Your task to perform on an android device: turn notification dots on Image 0: 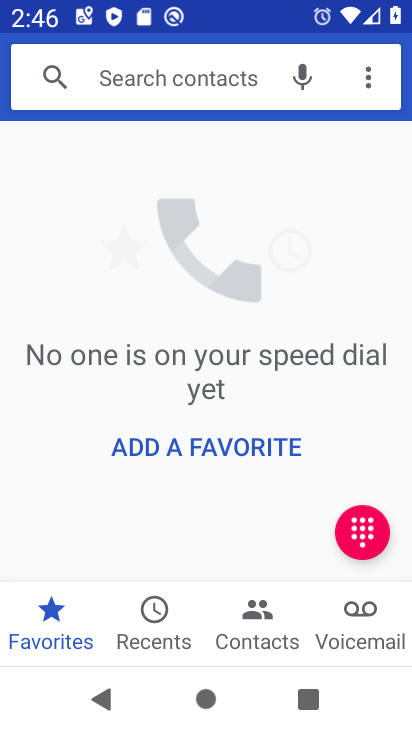
Step 0: press home button
Your task to perform on an android device: turn notification dots on Image 1: 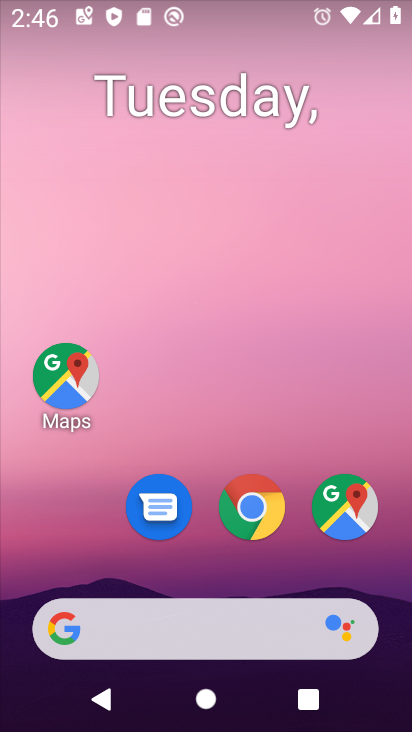
Step 1: drag from (284, 538) to (279, 169)
Your task to perform on an android device: turn notification dots on Image 2: 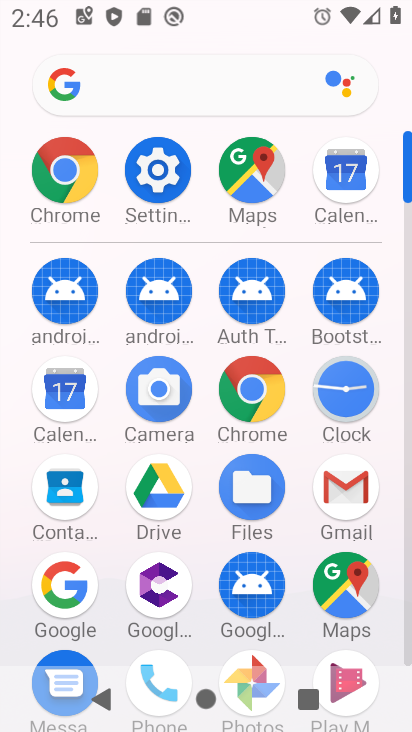
Step 2: click (151, 164)
Your task to perform on an android device: turn notification dots on Image 3: 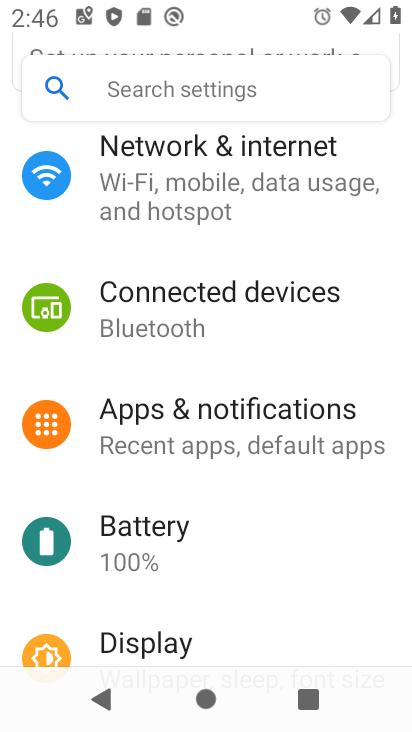
Step 3: drag from (181, 731) to (350, 717)
Your task to perform on an android device: turn notification dots on Image 4: 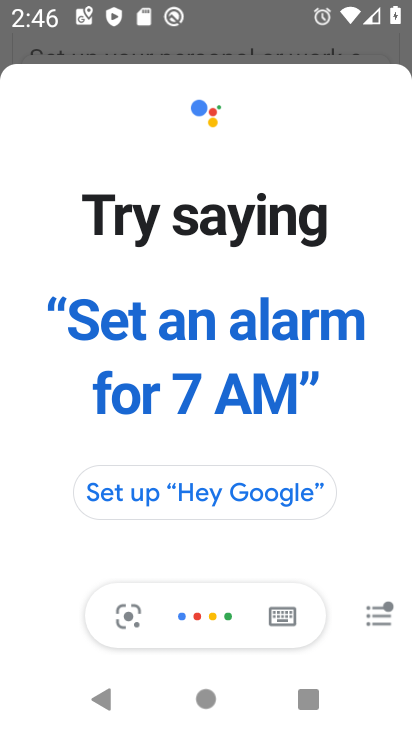
Step 4: press back button
Your task to perform on an android device: turn notification dots on Image 5: 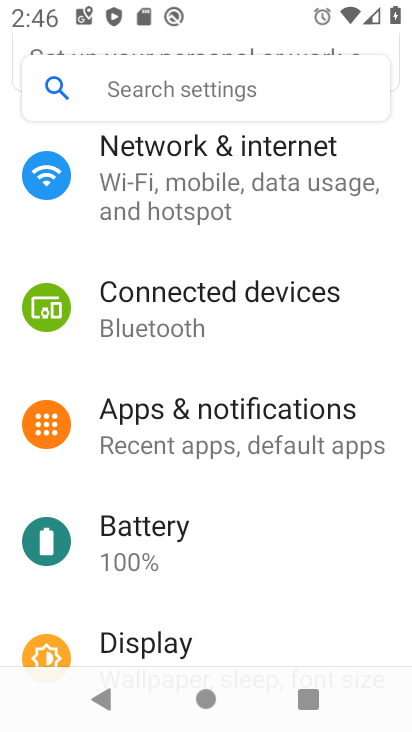
Step 5: click (194, 74)
Your task to perform on an android device: turn notification dots on Image 6: 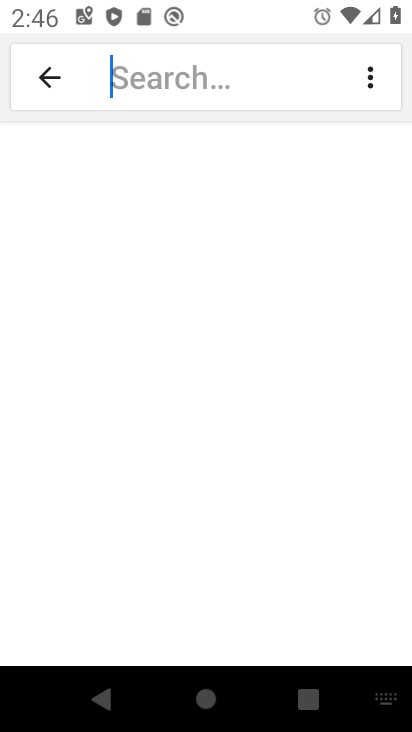
Step 6: type "notification dots "
Your task to perform on an android device: turn notification dots on Image 7: 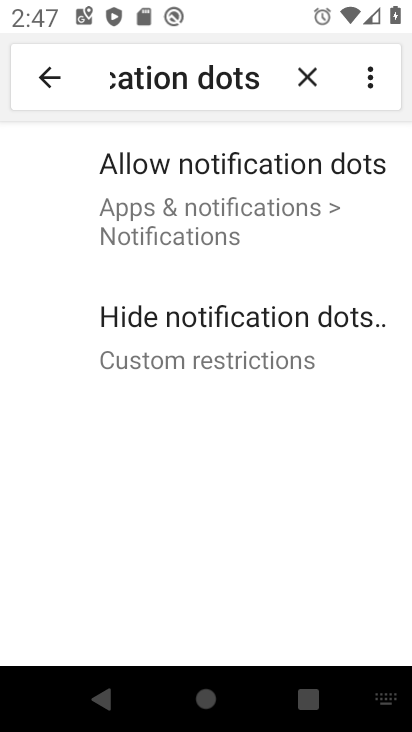
Step 7: click (148, 198)
Your task to perform on an android device: turn notification dots on Image 8: 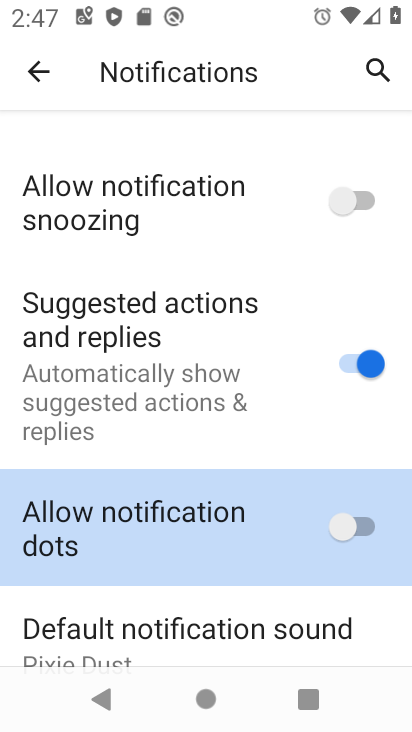
Step 8: click (367, 543)
Your task to perform on an android device: turn notification dots on Image 9: 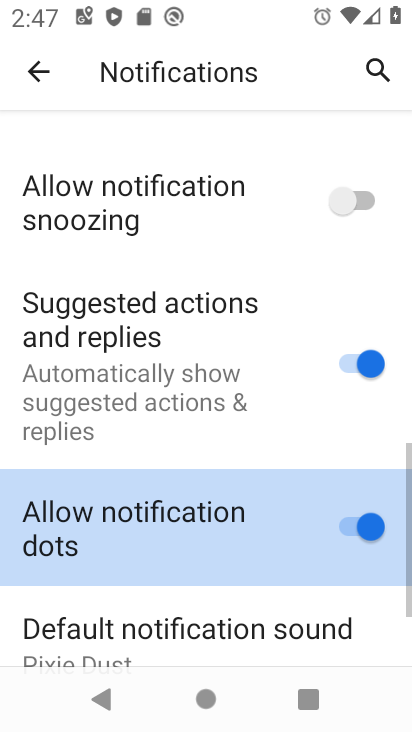
Step 9: task complete